Your task to perform on an android device: Open ESPN.com Image 0: 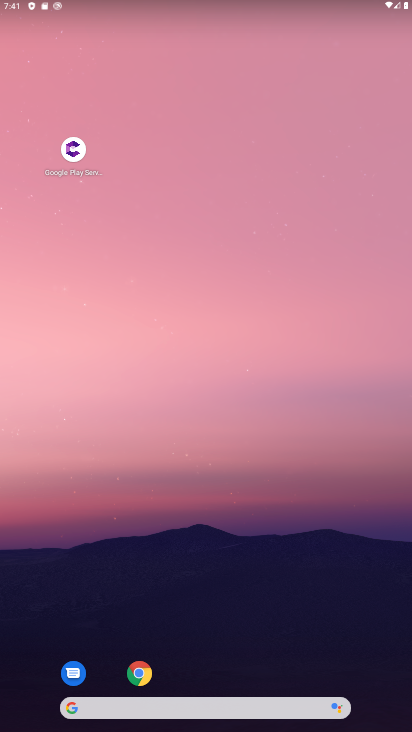
Step 0: drag from (184, 680) to (231, 148)
Your task to perform on an android device: Open ESPN.com Image 1: 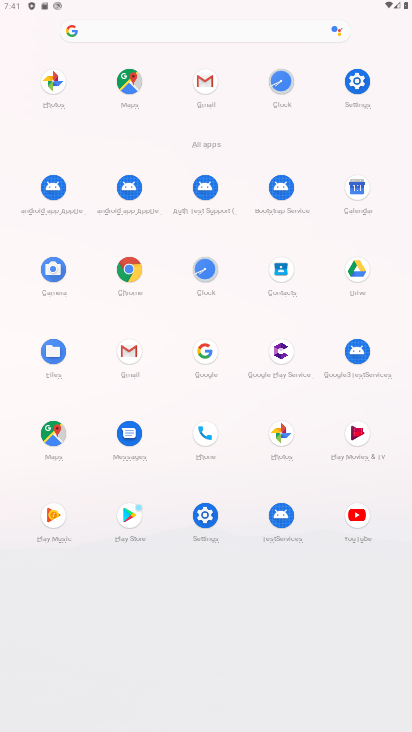
Step 1: click (132, 268)
Your task to perform on an android device: Open ESPN.com Image 2: 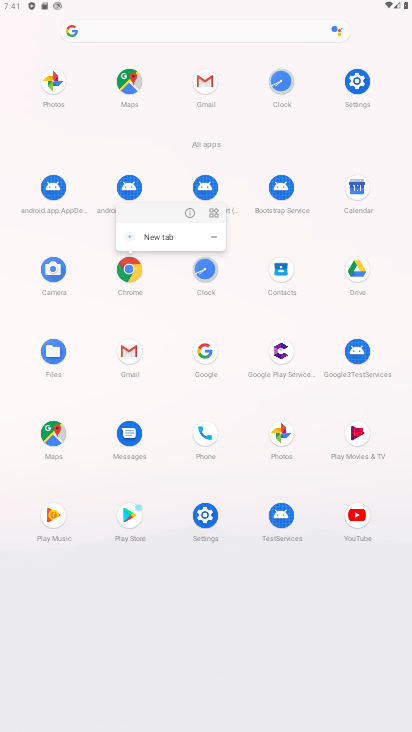
Step 2: click (125, 279)
Your task to perform on an android device: Open ESPN.com Image 3: 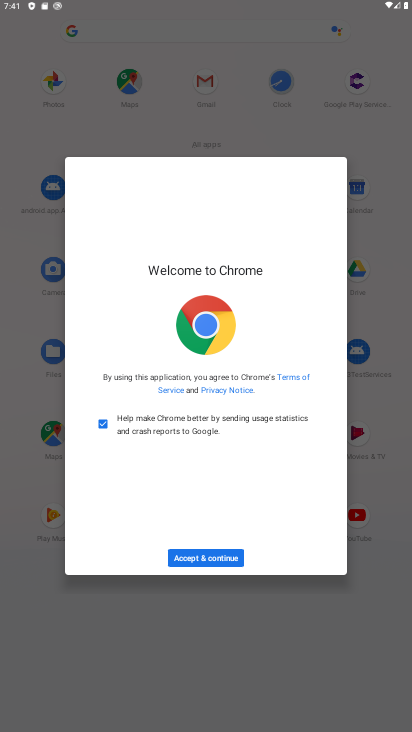
Step 3: click (208, 558)
Your task to perform on an android device: Open ESPN.com Image 4: 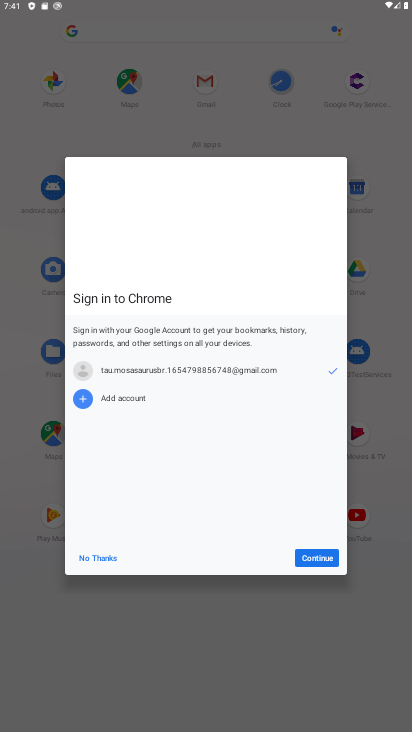
Step 4: click (334, 560)
Your task to perform on an android device: Open ESPN.com Image 5: 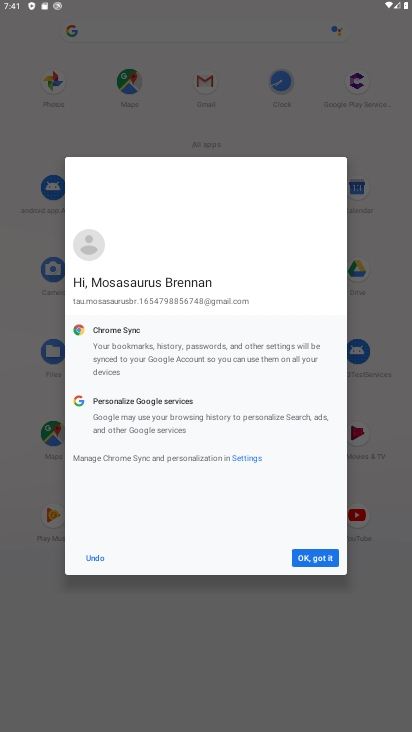
Step 5: click (334, 560)
Your task to perform on an android device: Open ESPN.com Image 6: 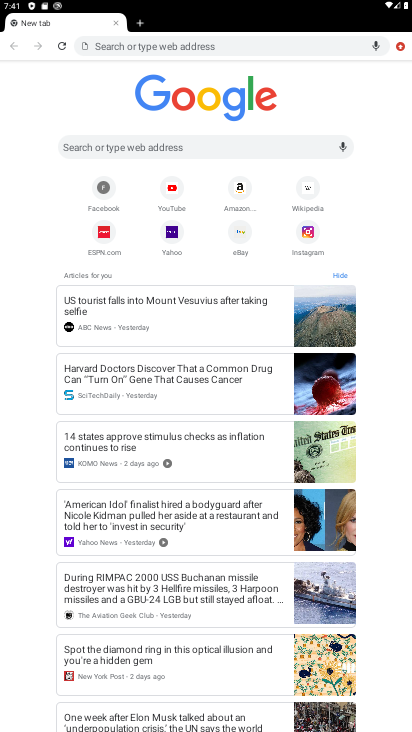
Step 6: click (106, 236)
Your task to perform on an android device: Open ESPN.com Image 7: 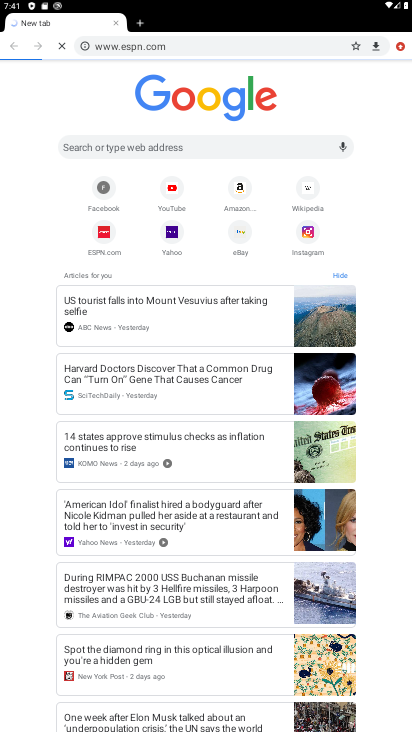
Step 7: click (102, 247)
Your task to perform on an android device: Open ESPN.com Image 8: 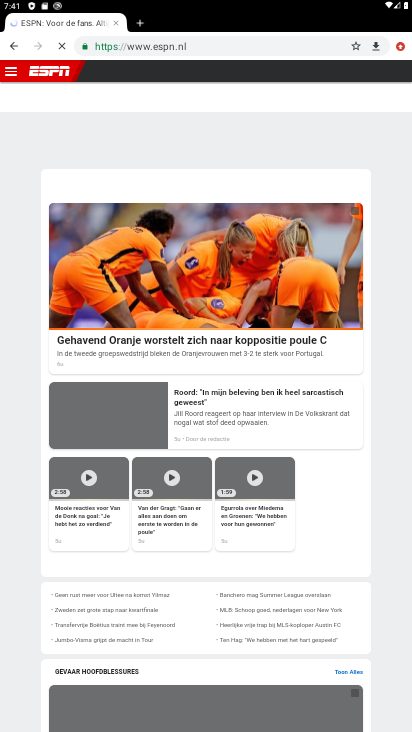
Step 8: task complete